Your task to perform on an android device: Set the phone to "Do not disturb". Image 0: 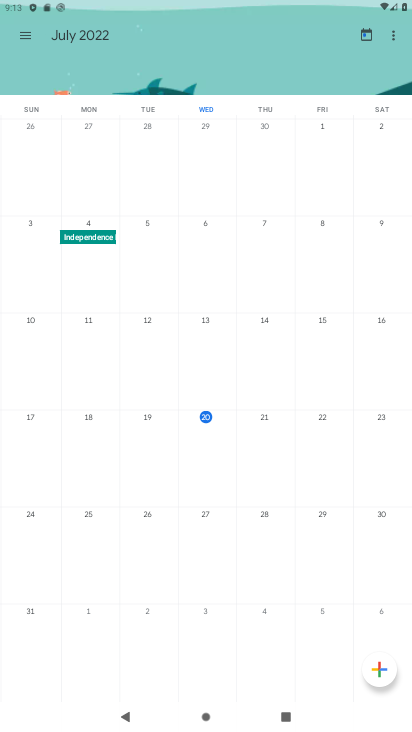
Step 0: press home button
Your task to perform on an android device: Set the phone to "Do not disturb". Image 1: 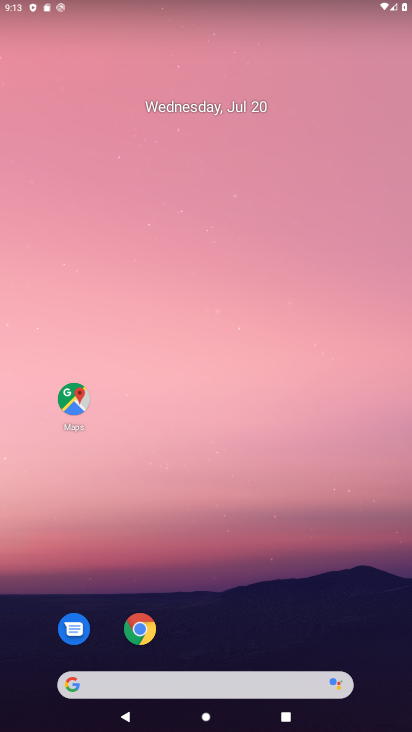
Step 1: drag from (236, 598) to (272, 111)
Your task to perform on an android device: Set the phone to "Do not disturb". Image 2: 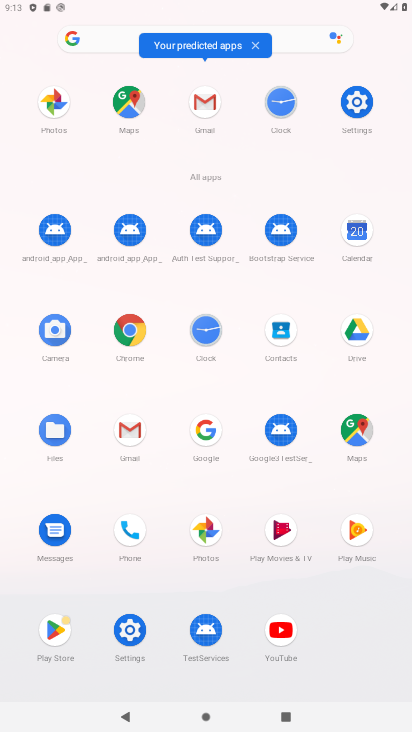
Step 2: click (341, 102)
Your task to perform on an android device: Set the phone to "Do not disturb". Image 3: 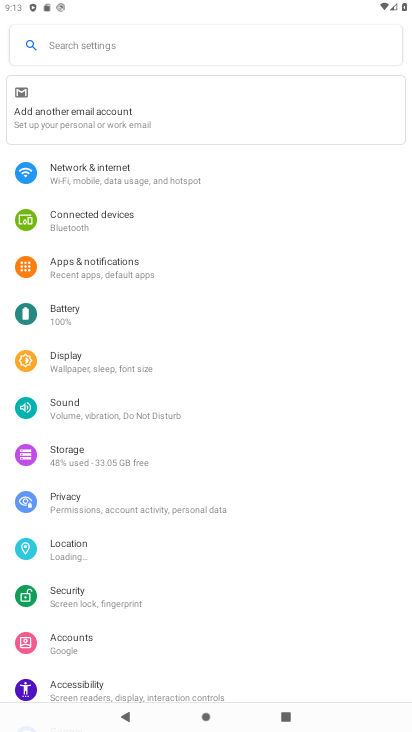
Step 3: click (137, 416)
Your task to perform on an android device: Set the phone to "Do not disturb". Image 4: 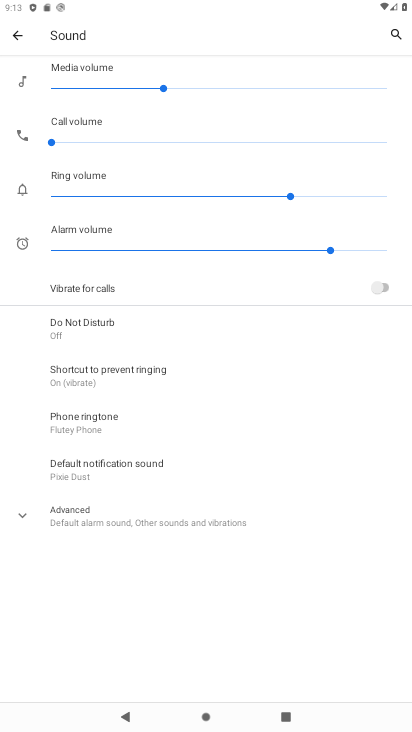
Step 4: click (174, 336)
Your task to perform on an android device: Set the phone to "Do not disturb". Image 5: 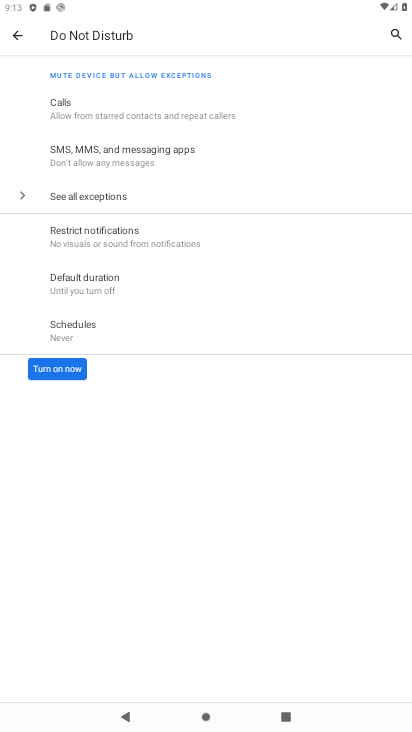
Step 5: click (59, 369)
Your task to perform on an android device: Set the phone to "Do not disturb". Image 6: 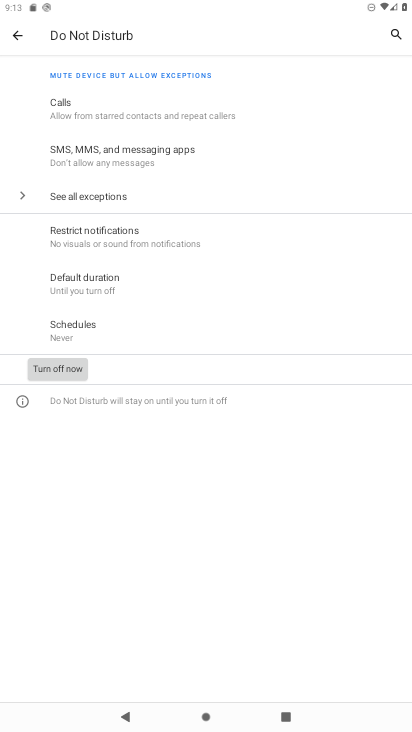
Step 6: task complete